Your task to perform on an android device: empty trash in the gmail app Image 0: 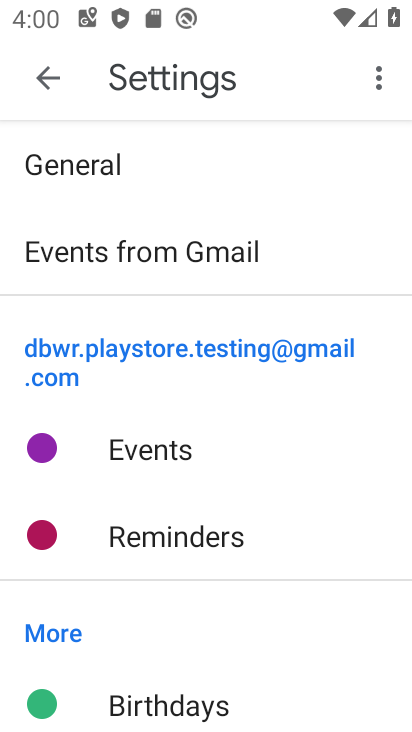
Step 0: press home button
Your task to perform on an android device: empty trash in the gmail app Image 1: 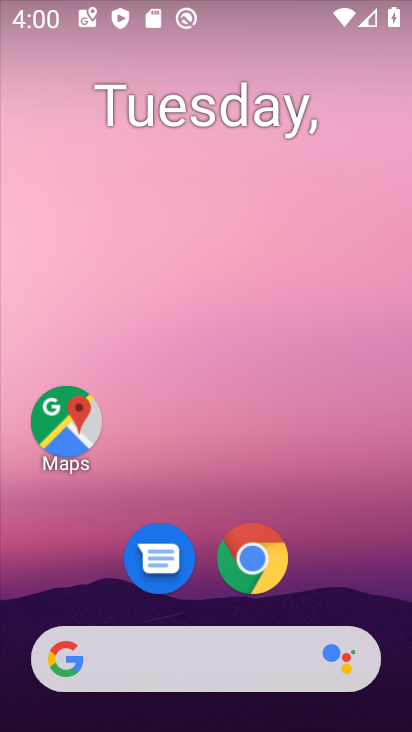
Step 1: drag from (86, 601) to (153, 243)
Your task to perform on an android device: empty trash in the gmail app Image 2: 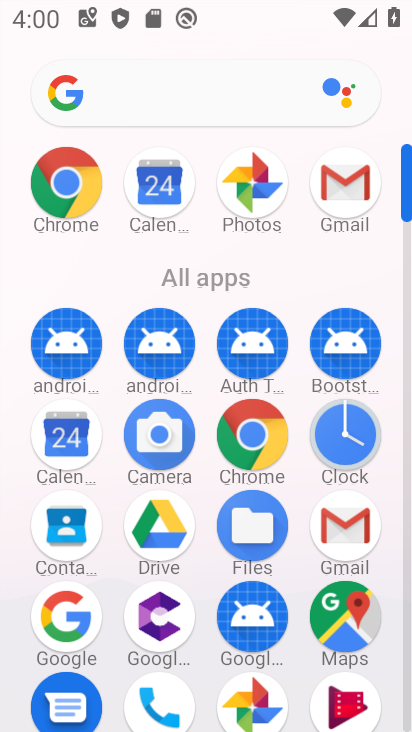
Step 2: click (342, 531)
Your task to perform on an android device: empty trash in the gmail app Image 3: 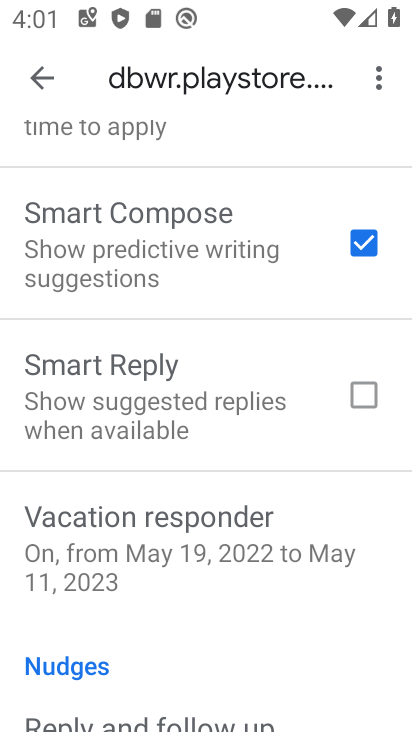
Step 3: click (38, 86)
Your task to perform on an android device: empty trash in the gmail app Image 4: 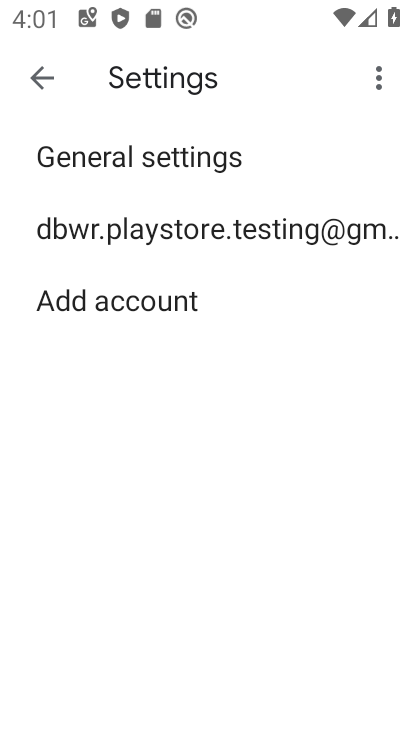
Step 4: click (38, 86)
Your task to perform on an android device: empty trash in the gmail app Image 5: 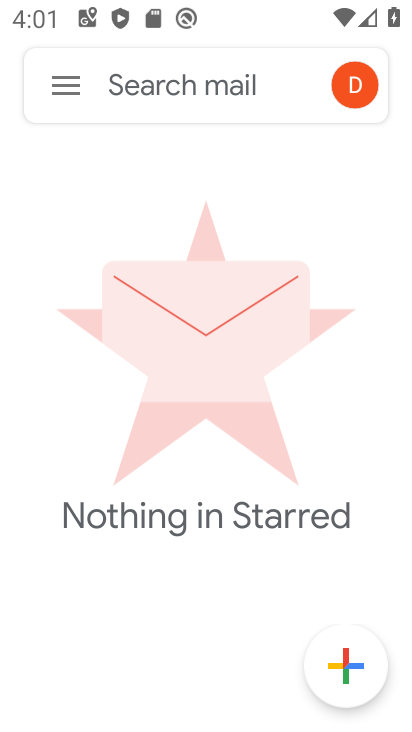
Step 5: click (62, 84)
Your task to perform on an android device: empty trash in the gmail app Image 6: 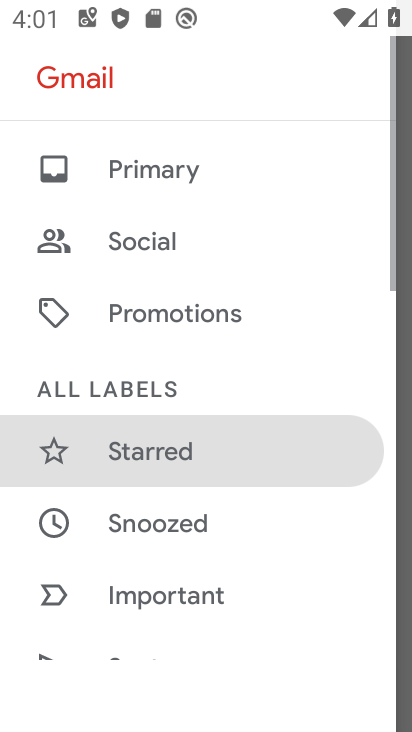
Step 6: drag from (178, 633) to (329, 213)
Your task to perform on an android device: empty trash in the gmail app Image 7: 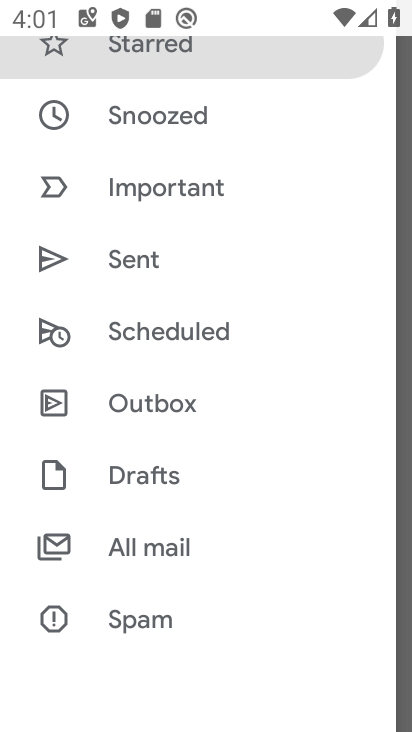
Step 7: drag from (187, 587) to (304, 271)
Your task to perform on an android device: empty trash in the gmail app Image 8: 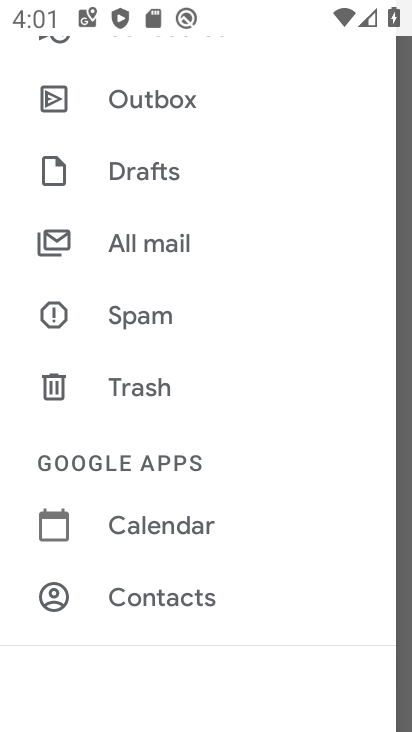
Step 8: click (197, 404)
Your task to perform on an android device: empty trash in the gmail app Image 9: 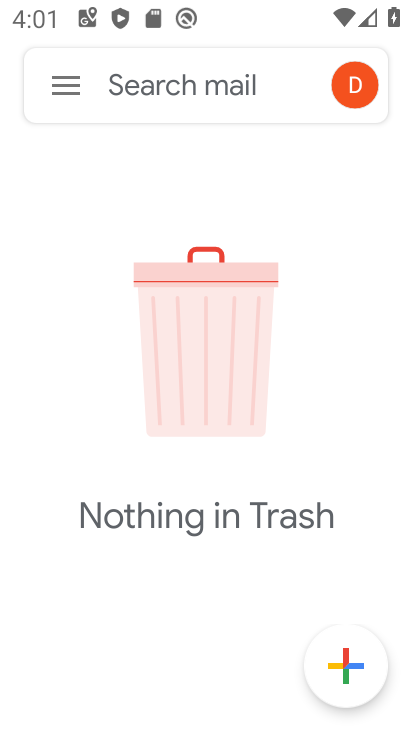
Step 9: task complete